Your task to perform on an android device: remove spam from my inbox in the gmail app Image 0: 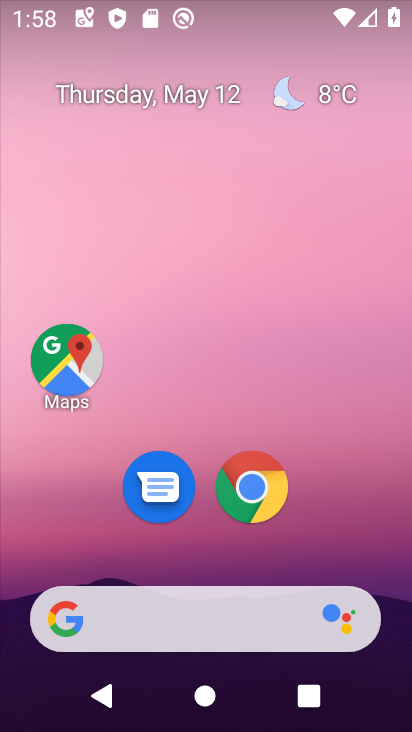
Step 0: drag from (305, 570) to (309, 2)
Your task to perform on an android device: remove spam from my inbox in the gmail app Image 1: 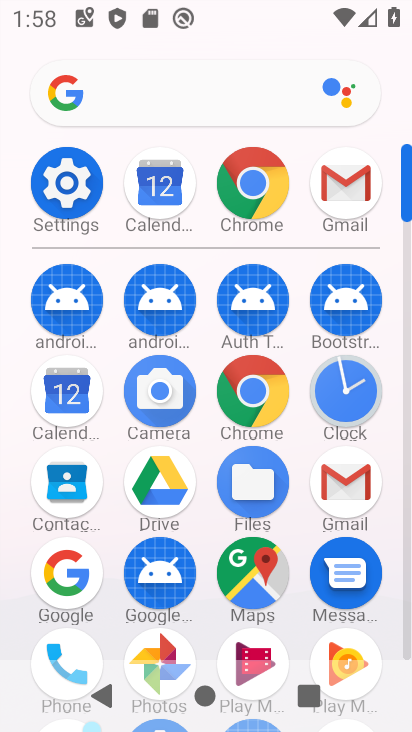
Step 1: click (349, 475)
Your task to perform on an android device: remove spam from my inbox in the gmail app Image 2: 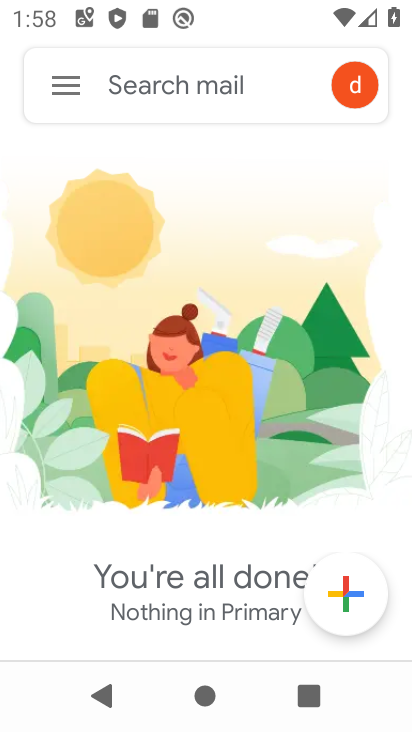
Step 2: click (78, 90)
Your task to perform on an android device: remove spam from my inbox in the gmail app Image 3: 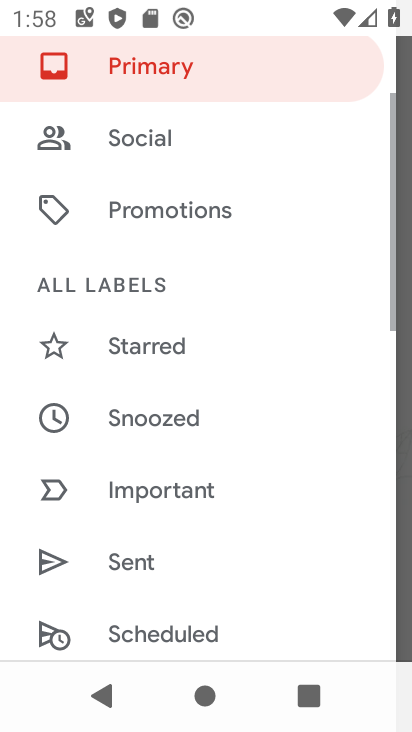
Step 3: drag from (157, 524) to (160, 189)
Your task to perform on an android device: remove spam from my inbox in the gmail app Image 4: 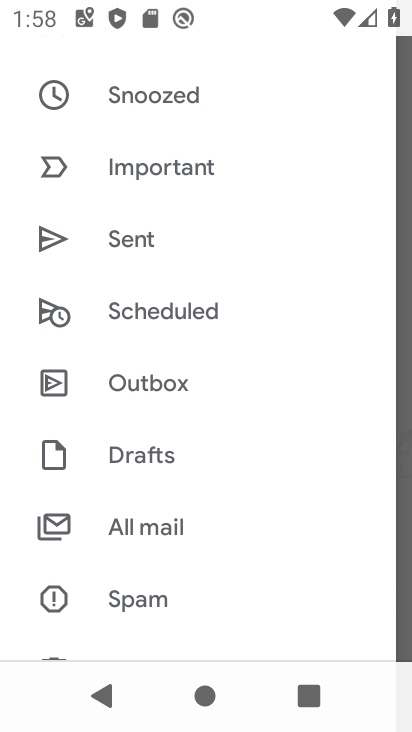
Step 4: click (157, 581)
Your task to perform on an android device: remove spam from my inbox in the gmail app Image 5: 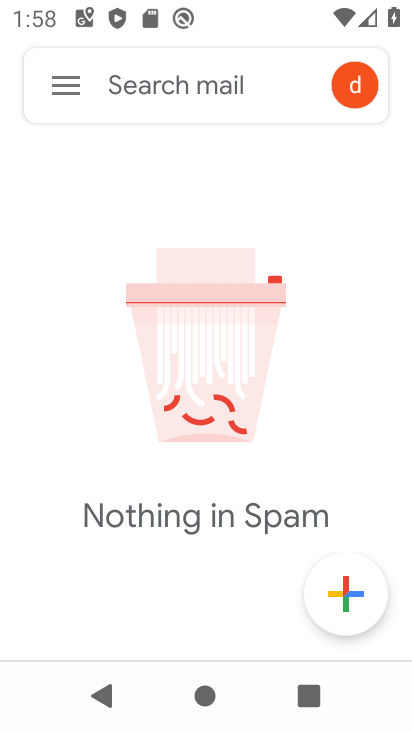
Step 5: task complete